Your task to perform on an android device: turn off sleep mode Image 0: 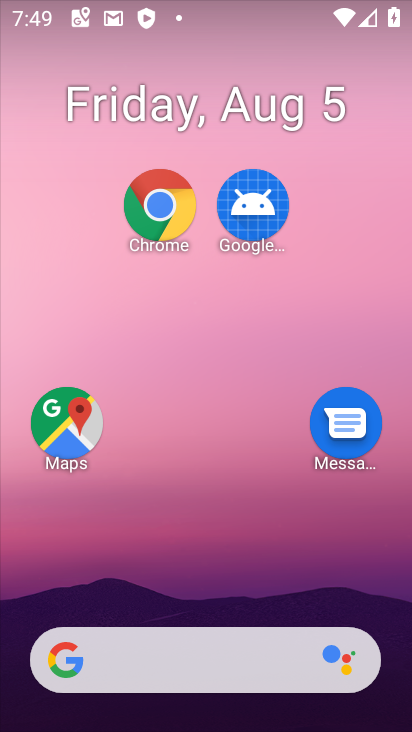
Step 0: drag from (220, 606) to (102, 98)
Your task to perform on an android device: turn off sleep mode Image 1: 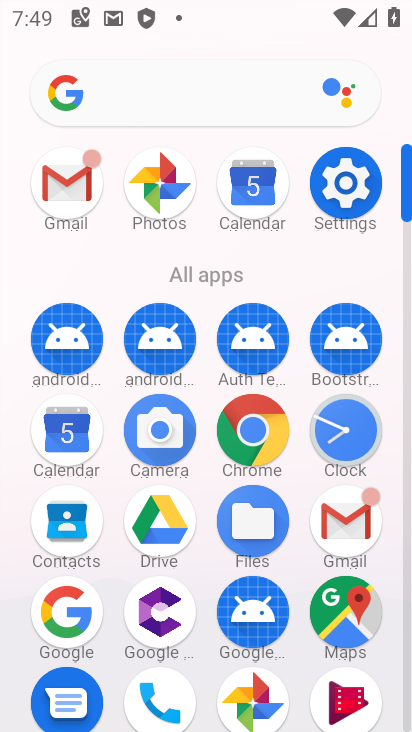
Step 1: click (344, 183)
Your task to perform on an android device: turn off sleep mode Image 2: 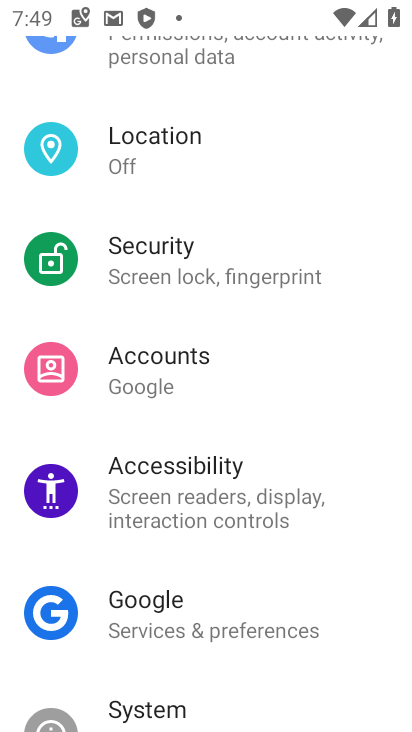
Step 2: click (320, 542)
Your task to perform on an android device: turn off sleep mode Image 3: 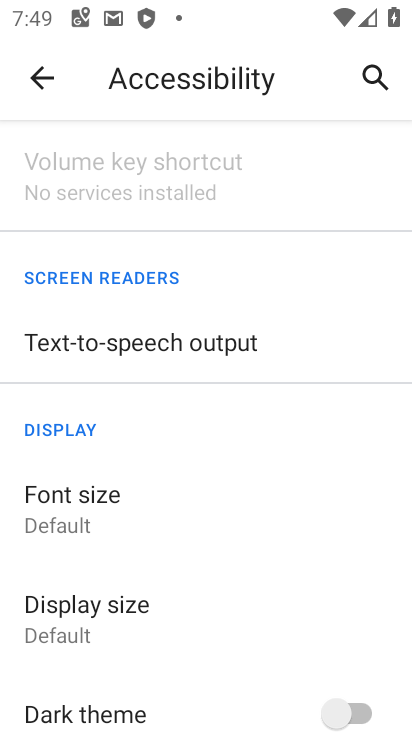
Step 3: task complete